Your task to perform on an android device: Open location settings Image 0: 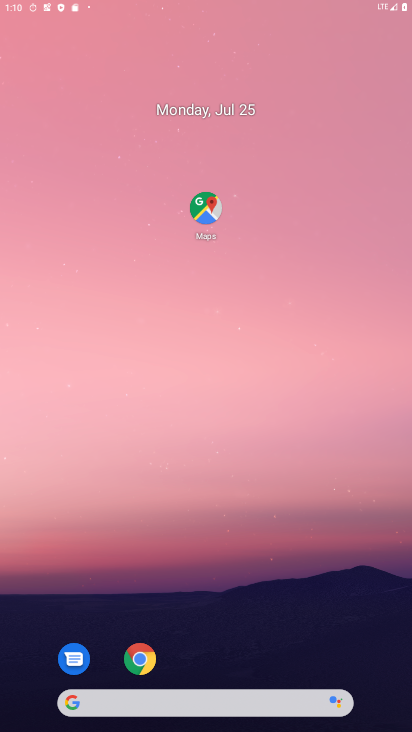
Step 0: click (94, 691)
Your task to perform on an android device: Open location settings Image 1: 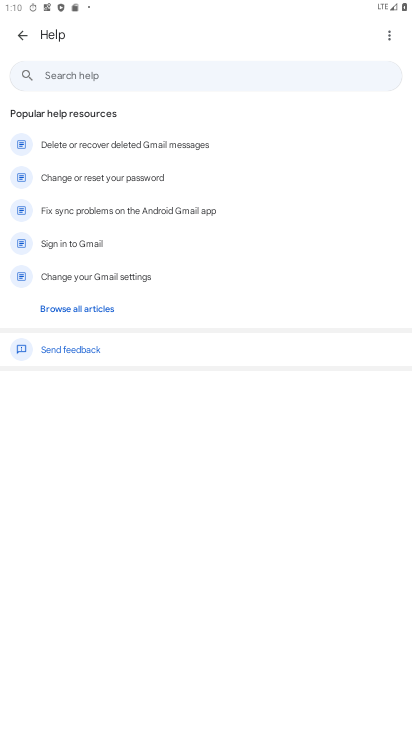
Step 1: press home button
Your task to perform on an android device: Open location settings Image 2: 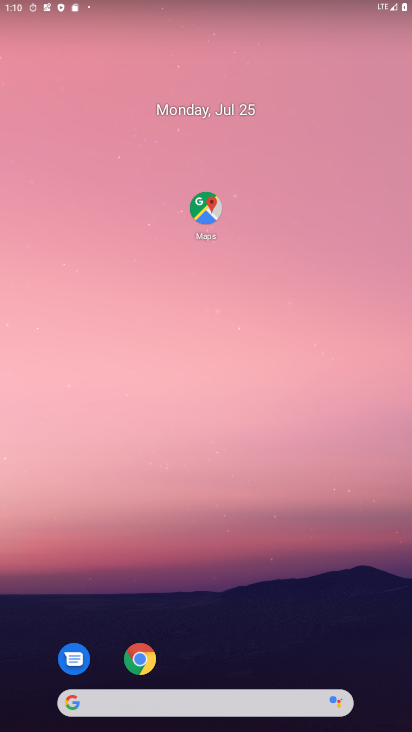
Step 2: drag from (36, 684) to (217, 145)
Your task to perform on an android device: Open location settings Image 3: 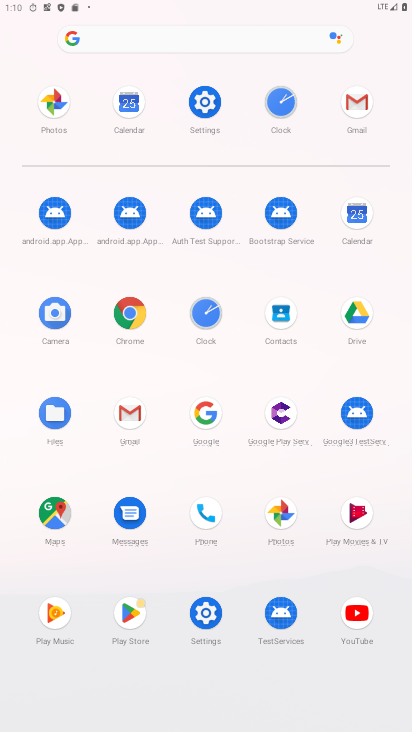
Step 3: click (208, 596)
Your task to perform on an android device: Open location settings Image 4: 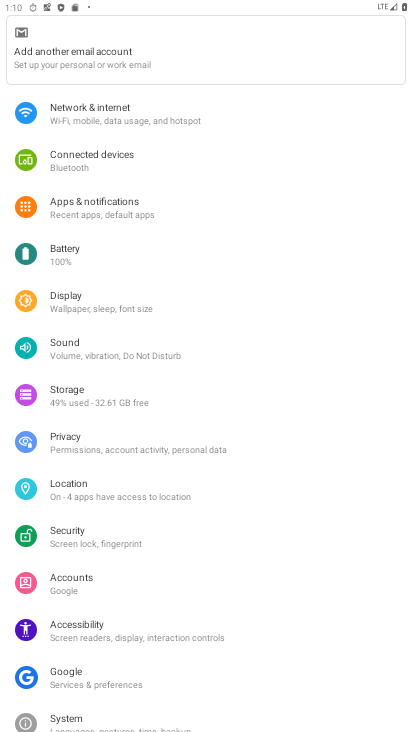
Step 4: click (71, 495)
Your task to perform on an android device: Open location settings Image 5: 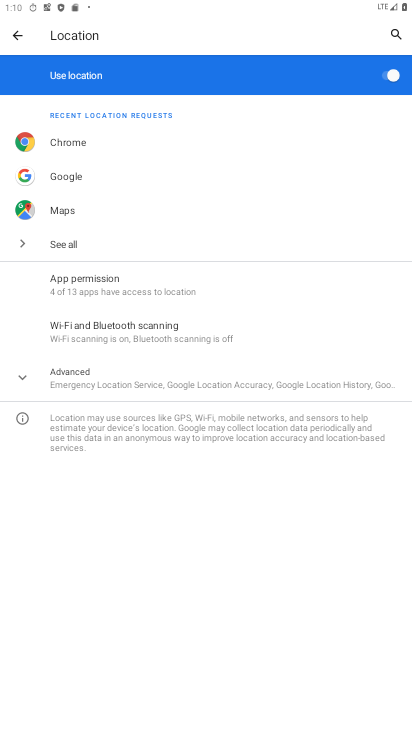
Step 5: click (61, 377)
Your task to perform on an android device: Open location settings Image 6: 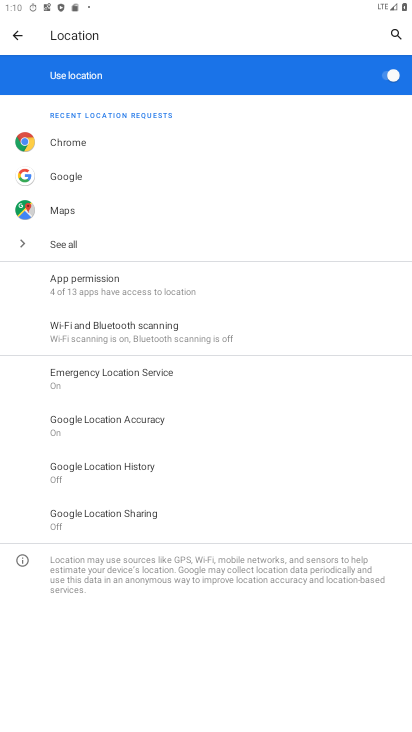
Step 6: task complete